Your task to perform on an android device: turn on the 12-hour format for clock Image 0: 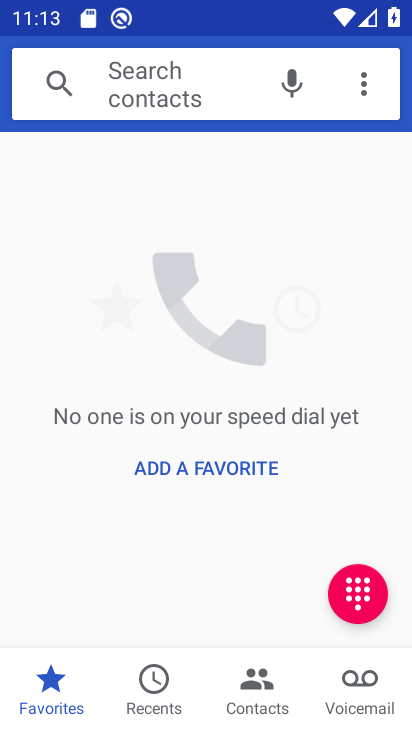
Step 0: press home button
Your task to perform on an android device: turn on the 12-hour format for clock Image 1: 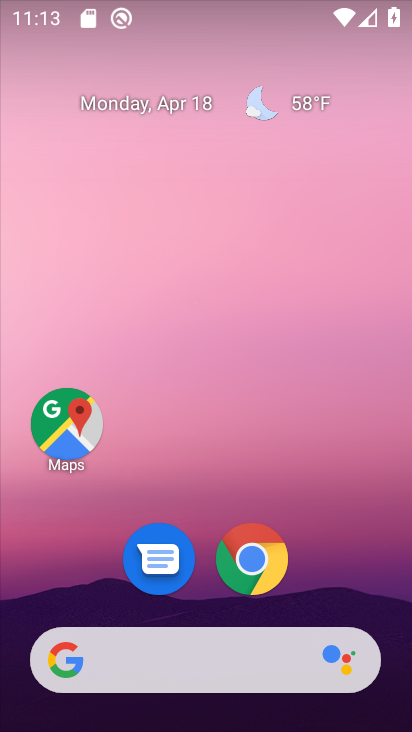
Step 1: drag from (339, 566) to (294, 86)
Your task to perform on an android device: turn on the 12-hour format for clock Image 2: 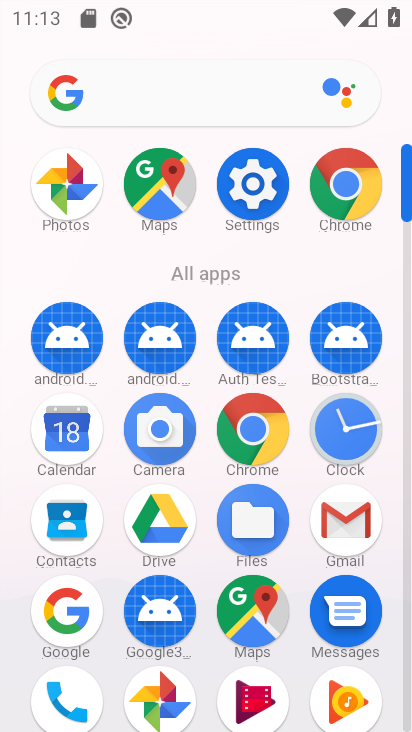
Step 2: click (352, 441)
Your task to perform on an android device: turn on the 12-hour format for clock Image 3: 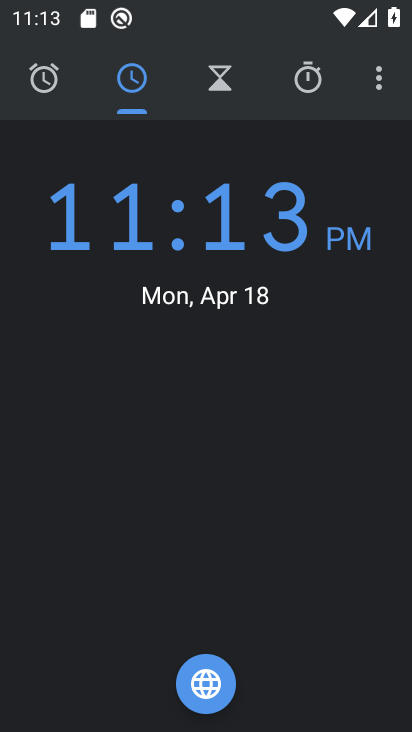
Step 3: click (381, 85)
Your task to perform on an android device: turn on the 12-hour format for clock Image 4: 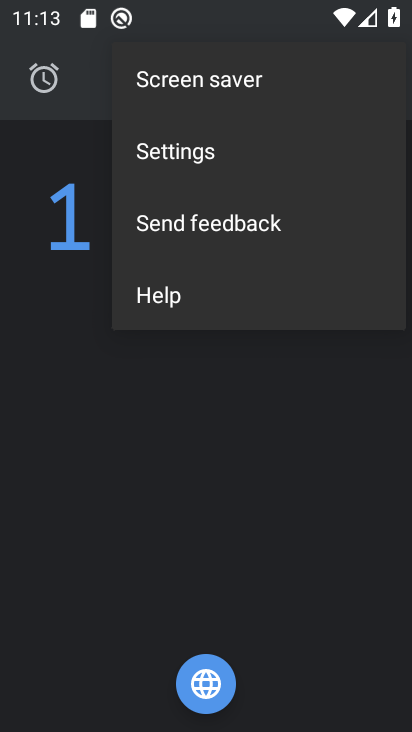
Step 4: click (184, 154)
Your task to perform on an android device: turn on the 12-hour format for clock Image 5: 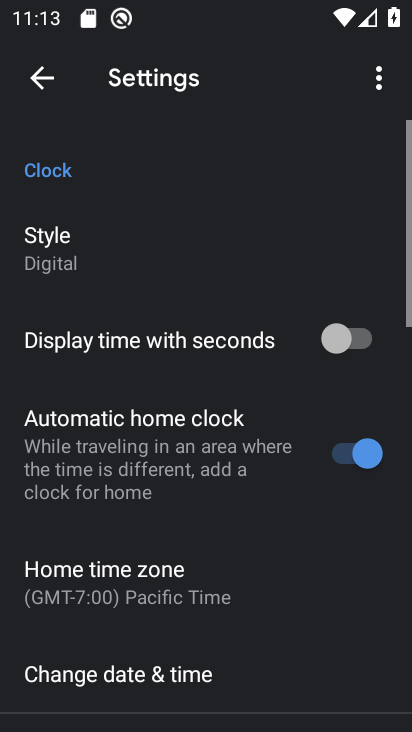
Step 5: drag from (157, 575) to (136, 304)
Your task to perform on an android device: turn on the 12-hour format for clock Image 6: 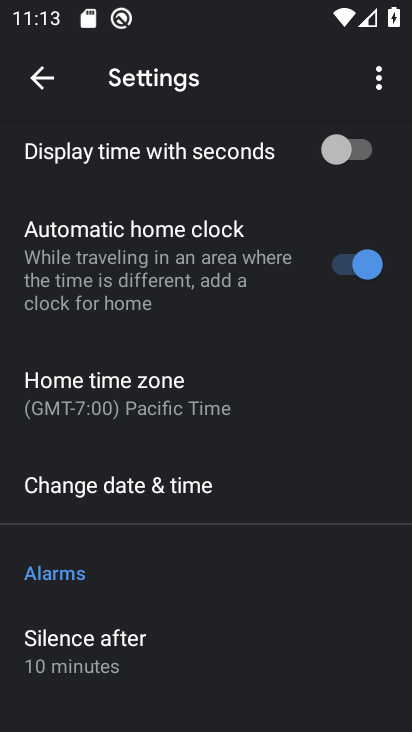
Step 6: click (123, 481)
Your task to perform on an android device: turn on the 12-hour format for clock Image 7: 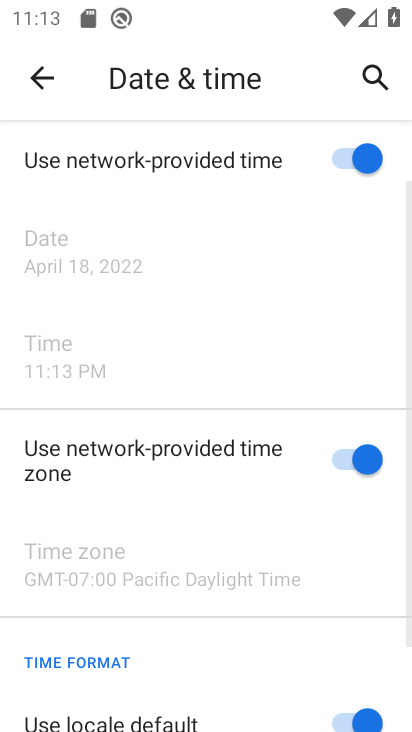
Step 7: task complete